Your task to perform on an android device: turn on notifications settings in the gmail app Image 0: 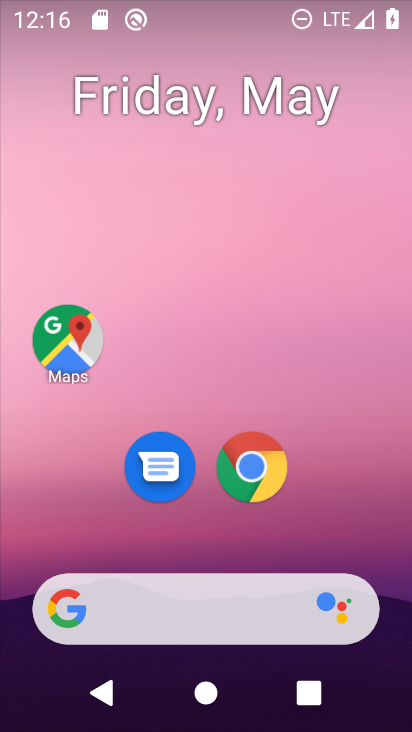
Step 0: drag from (260, 606) to (256, 18)
Your task to perform on an android device: turn on notifications settings in the gmail app Image 1: 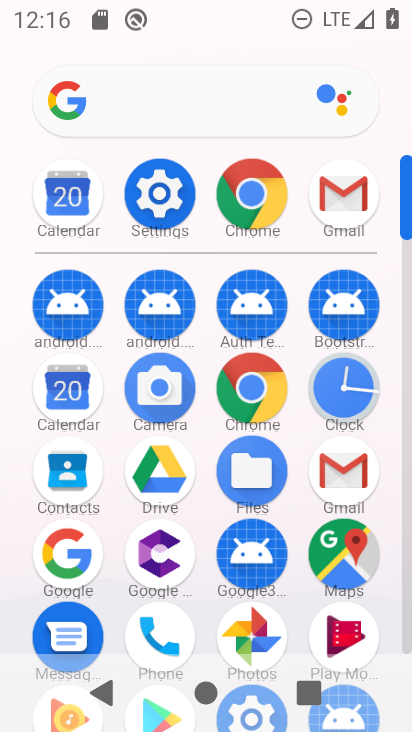
Step 1: click (351, 461)
Your task to perform on an android device: turn on notifications settings in the gmail app Image 2: 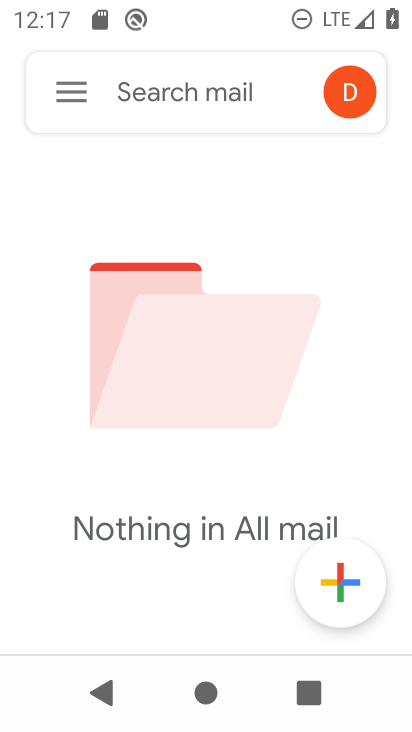
Step 2: click (70, 86)
Your task to perform on an android device: turn on notifications settings in the gmail app Image 3: 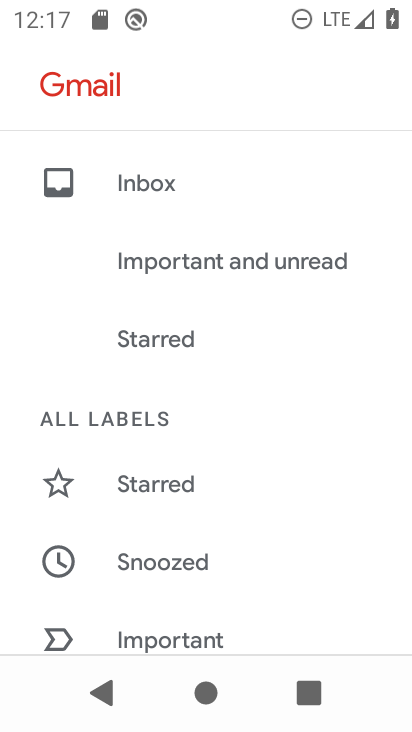
Step 3: drag from (198, 622) to (214, 136)
Your task to perform on an android device: turn on notifications settings in the gmail app Image 4: 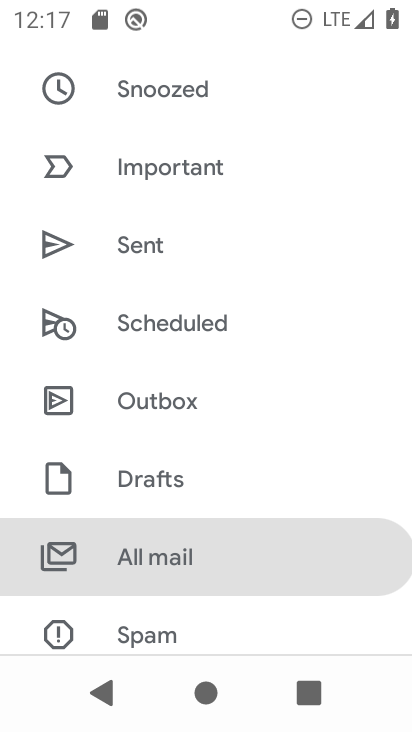
Step 4: drag from (302, 578) to (317, 209)
Your task to perform on an android device: turn on notifications settings in the gmail app Image 5: 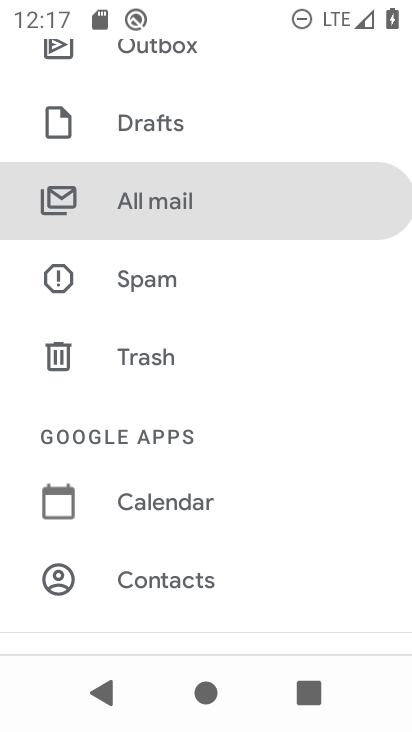
Step 5: drag from (201, 511) to (204, 170)
Your task to perform on an android device: turn on notifications settings in the gmail app Image 6: 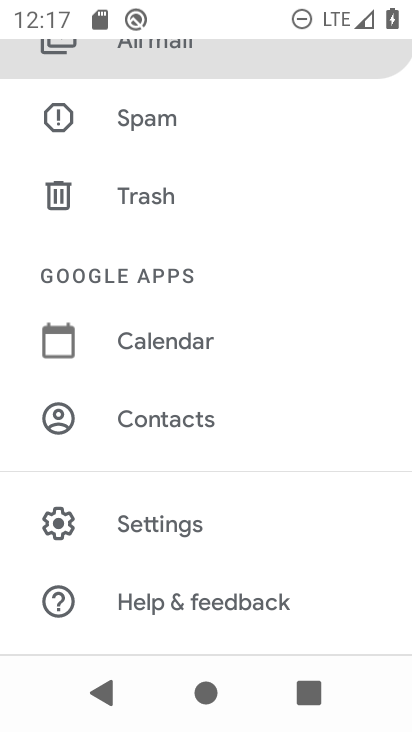
Step 6: click (191, 525)
Your task to perform on an android device: turn on notifications settings in the gmail app Image 7: 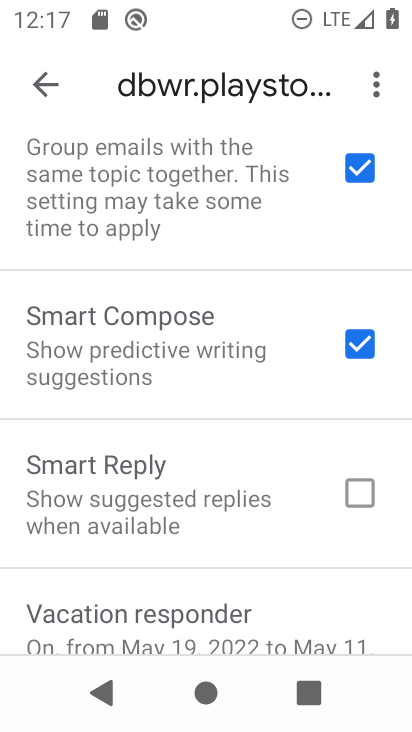
Step 7: drag from (199, 627) to (241, 169)
Your task to perform on an android device: turn on notifications settings in the gmail app Image 8: 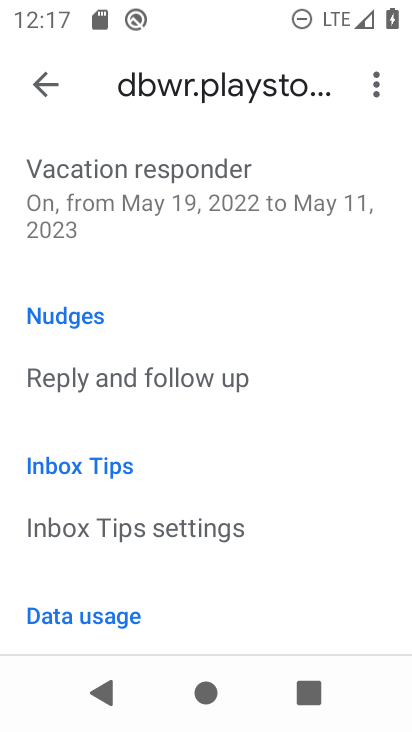
Step 8: drag from (242, 604) to (269, 209)
Your task to perform on an android device: turn on notifications settings in the gmail app Image 9: 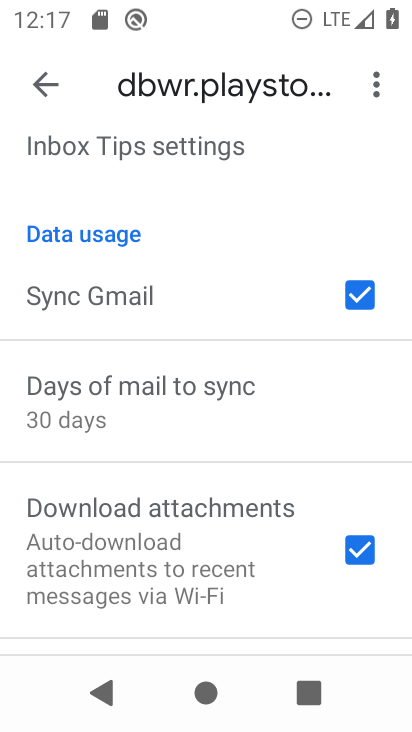
Step 9: drag from (252, 594) to (273, 181)
Your task to perform on an android device: turn on notifications settings in the gmail app Image 10: 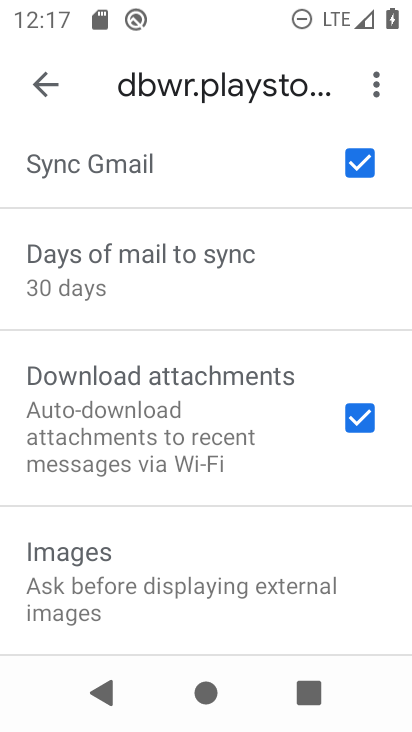
Step 10: drag from (251, 212) to (156, 724)
Your task to perform on an android device: turn on notifications settings in the gmail app Image 11: 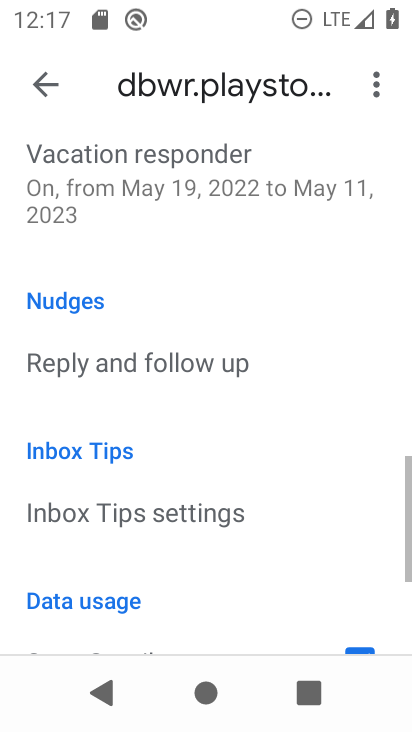
Step 11: drag from (197, 311) to (116, 703)
Your task to perform on an android device: turn on notifications settings in the gmail app Image 12: 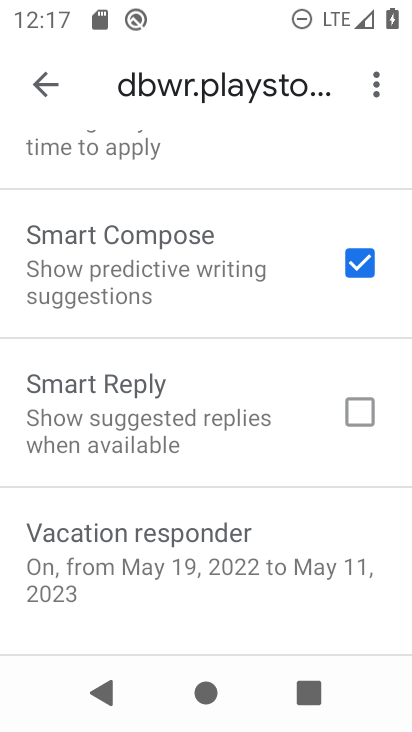
Step 12: drag from (145, 302) to (125, 682)
Your task to perform on an android device: turn on notifications settings in the gmail app Image 13: 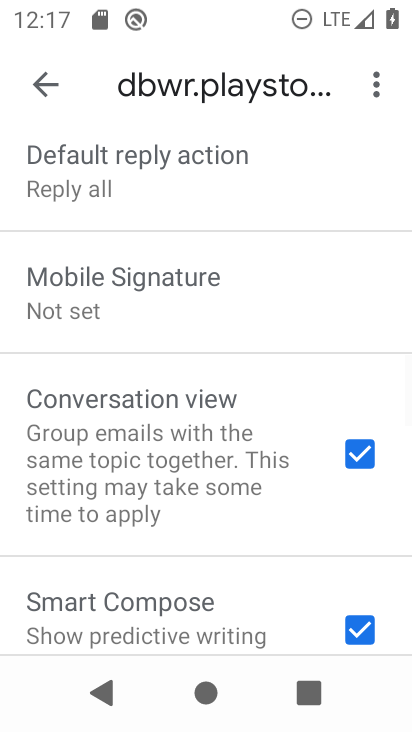
Step 13: drag from (183, 292) to (175, 673)
Your task to perform on an android device: turn on notifications settings in the gmail app Image 14: 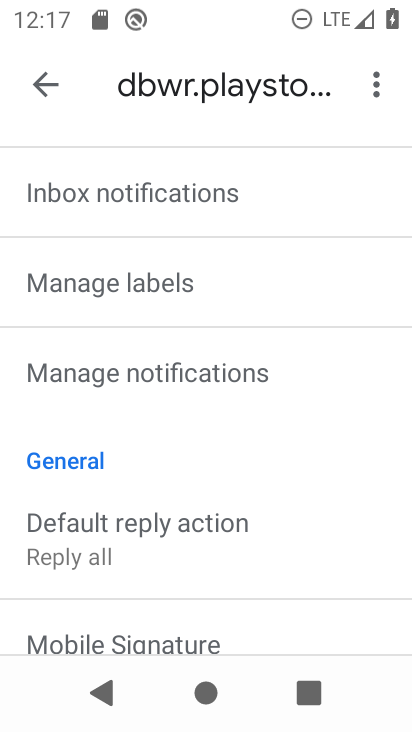
Step 14: click (186, 377)
Your task to perform on an android device: turn on notifications settings in the gmail app Image 15: 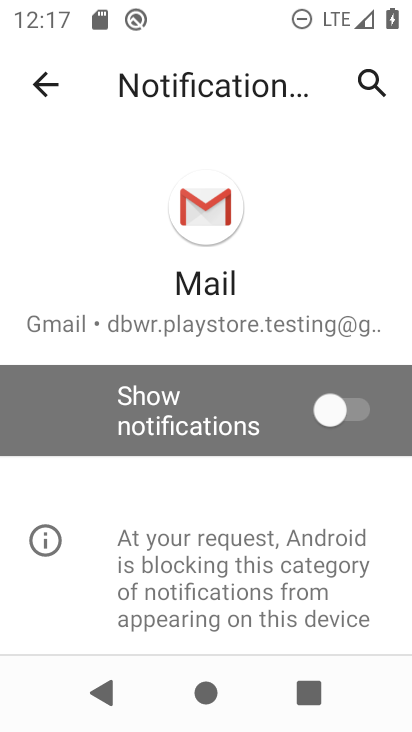
Step 15: click (356, 410)
Your task to perform on an android device: turn on notifications settings in the gmail app Image 16: 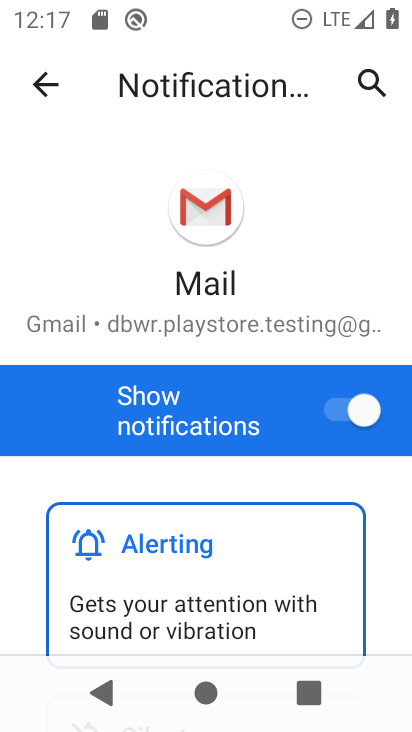
Step 16: task complete